Your task to perform on an android device: clear all cookies in the chrome app Image 0: 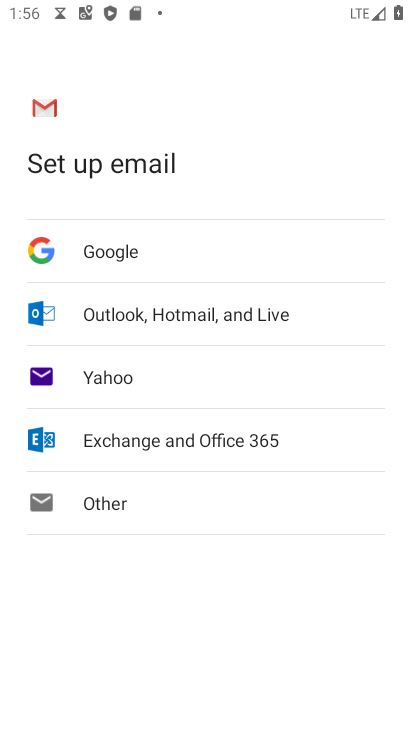
Step 0: press home button
Your task to perform on an android device: clear all cookies in the chrome app Image 1: 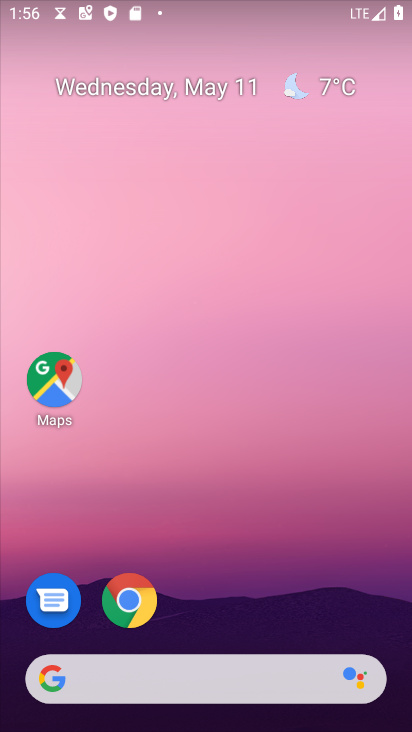
Step 1: click (133, 599)
Your task to perform on an android device: clear all cookies in the chrome app Image 2: 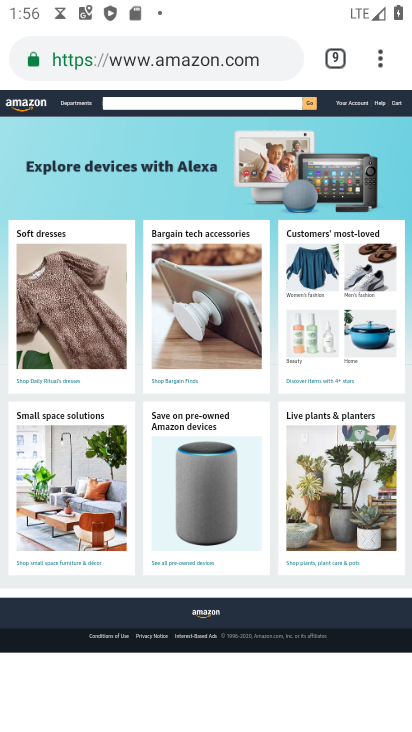
Step 2: click (383, 59)
Your task to perform on an android device: clear all cookies in the chrome app Image 3: 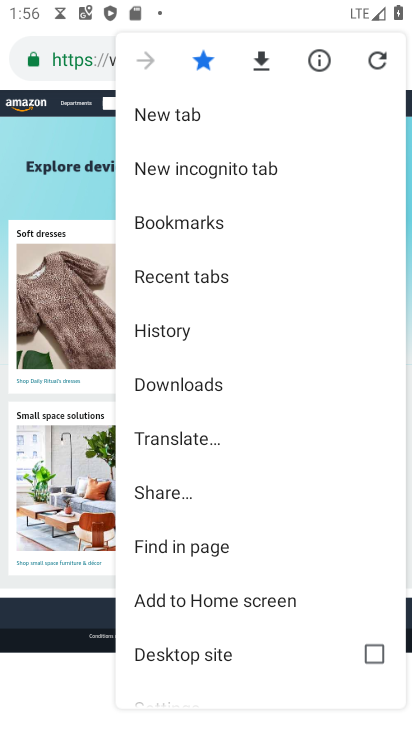
Step 3: click (170, 334)
Your task to perform on an android device: clear all cookies in the chrome app Image 4: 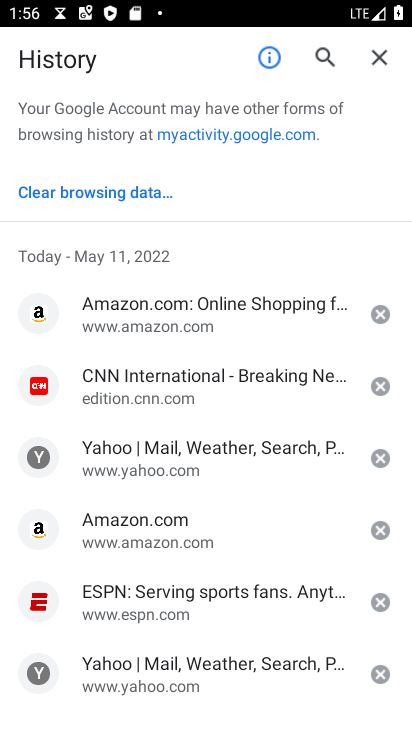
Step 4: click (139, 188)
Your task to perform on an android device: clear all cookies in the chrome app Image 5: 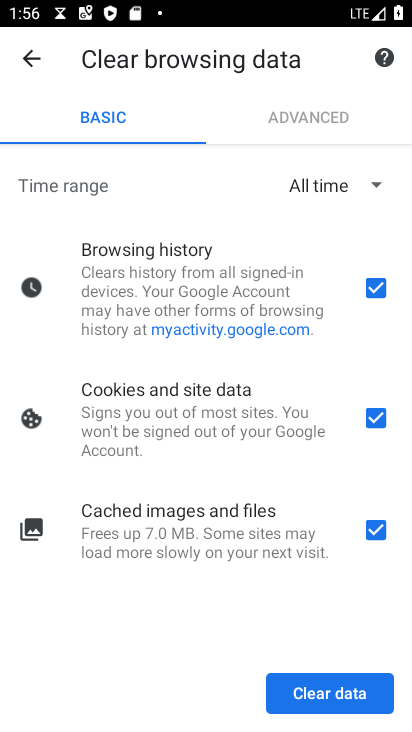
Step 5: click (328, 695)
Your task to perform on an android device: clear all cookies in the chrome app Image 6: 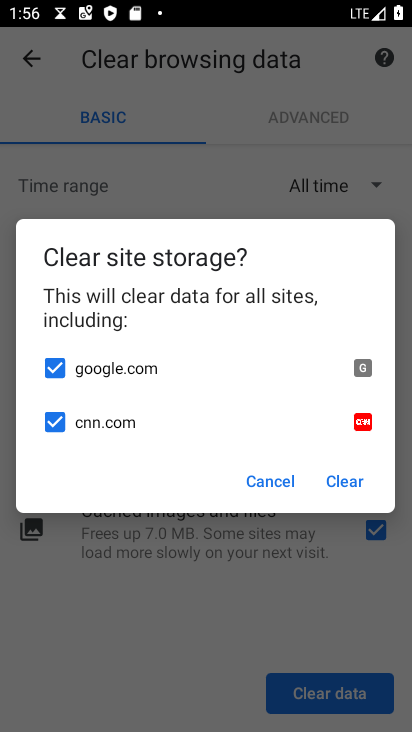
Step 6: click (334, 472)
Your task to perform on an android device: clear all cookies in the chrome app Image 7: 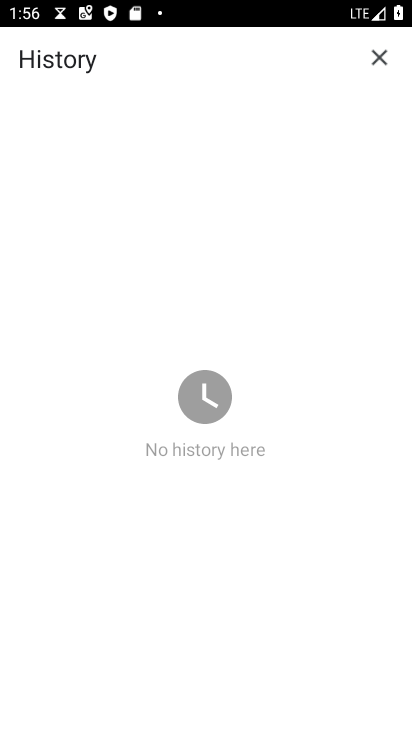
Step 7: task complete